Your task to perform on an android device: See recent photos Image 0: 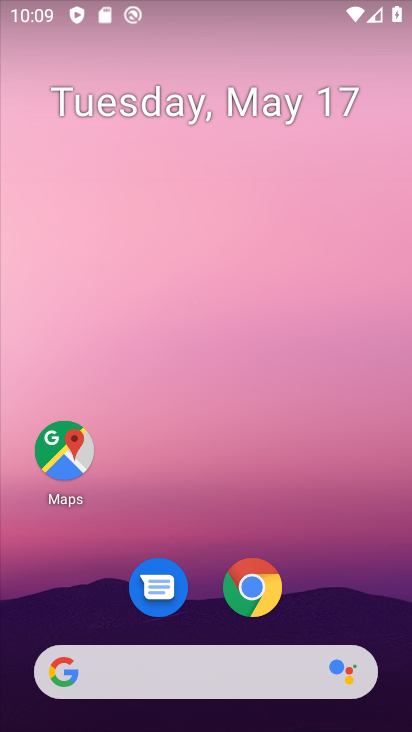
Step 0: drag from (350, 574) to (314, 114)
Your task to perform on an android device: See recent photos Image 1: 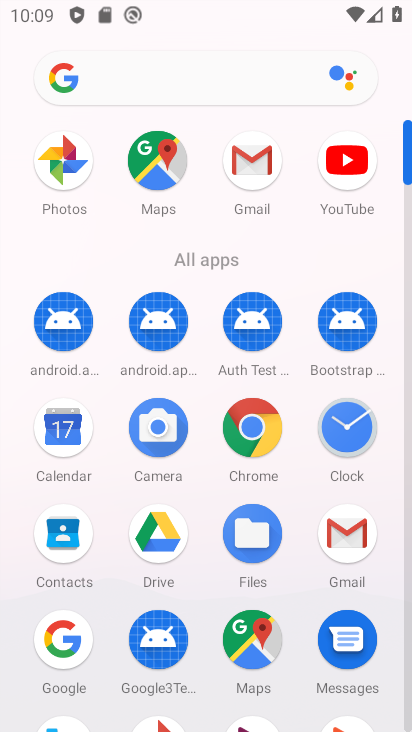
Step 1: drag from (303, 563) to (301, 211)
Your task to perform on an android device: See recent photos Image 2: 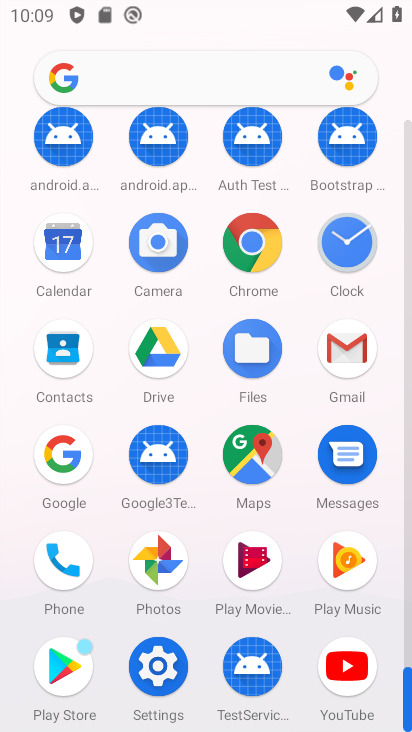
Step 2: click (167, 561)
Your task to perform on an android device: See recent photos Image 3: 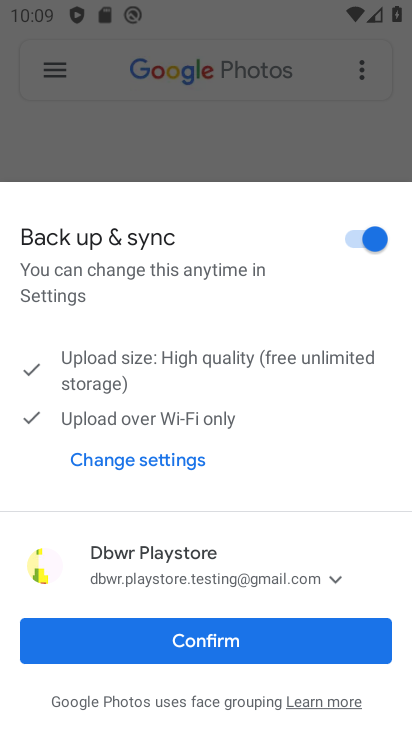
Step 3: click (245, 642)
Your task to perform on an android device: See recent photos Image 4: 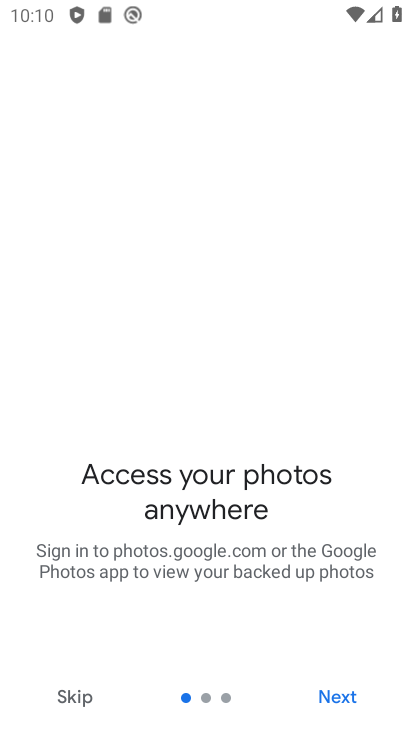
Step 4: click (334, 691)
Your task to perform on an android device: See recent photos Image 5: 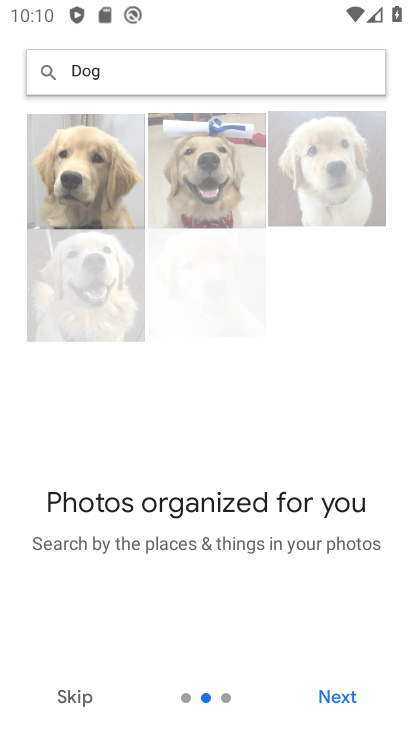
Step 5: click (342, 693)
Your task to perform on an android device: See recent photos Image 6: 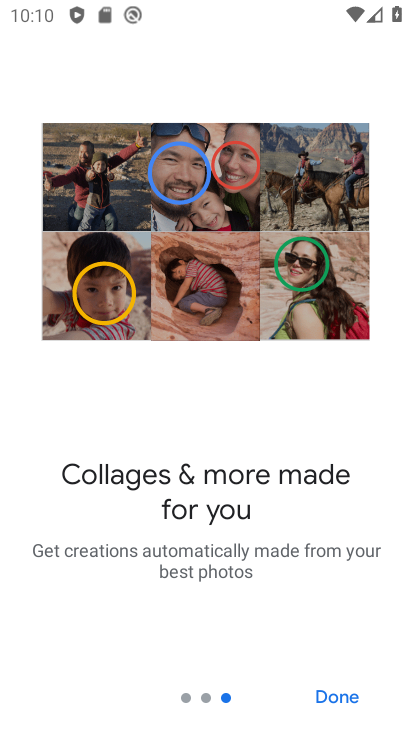
Step 6: click (339, 699)
Your task to perform on an android device: See recent photos Image 7: 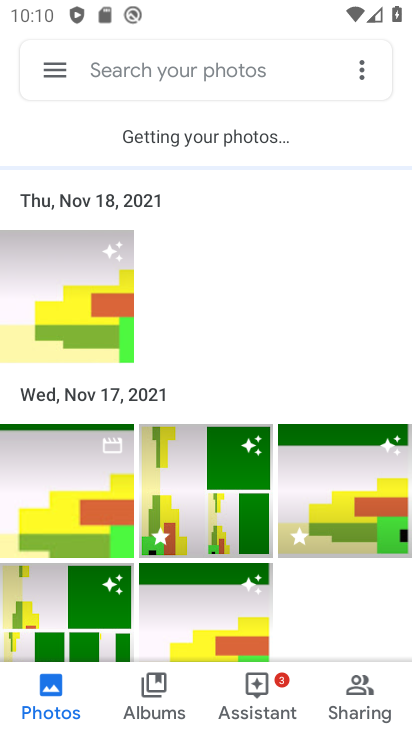
Step 7: task complete